Your task to perform on an android device: Open calendar and show me the first week of next month Image 0: 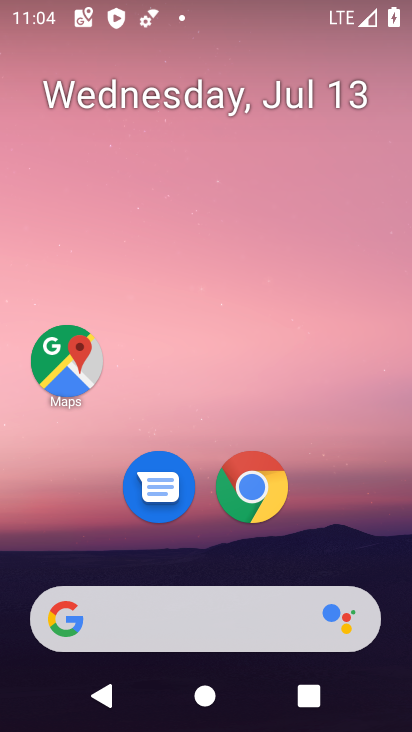
Step 0: click (410, 541)
Your task to perform on an android device: Open calendar and show me the first week of next month Image 1: 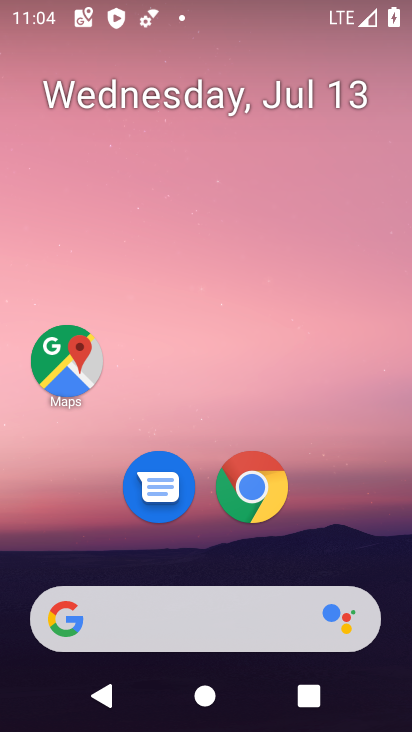
Step 1: drag from (208, 540) to (358, 570)
Your task to perform on an android device: Open calendar and show me the first week of next month Image 2: 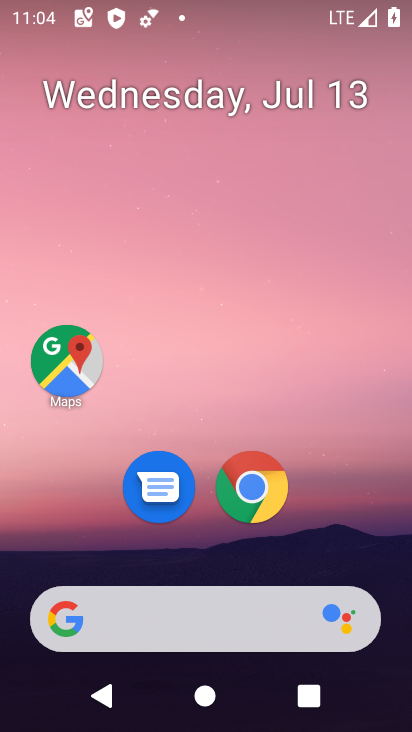
Step 2: drag from (210, 554) to (209, 82)
Your task to perform on an android device: Open calendar and show me the first week of next month Image 3: 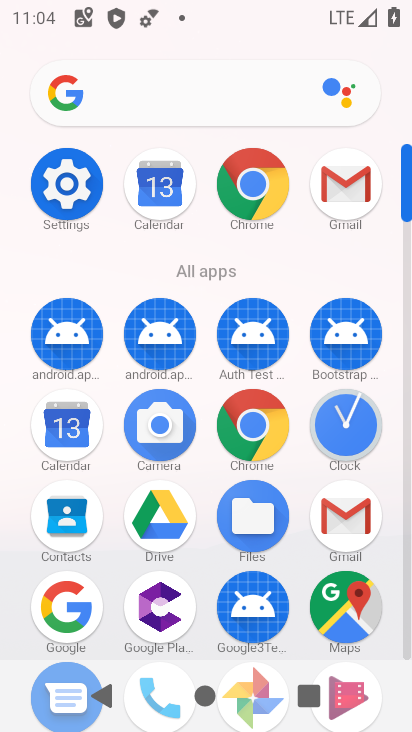
Step 3: click (60, 445)
Your task to perform on an android device: Open calendar and show me the first week of next month Image 4: 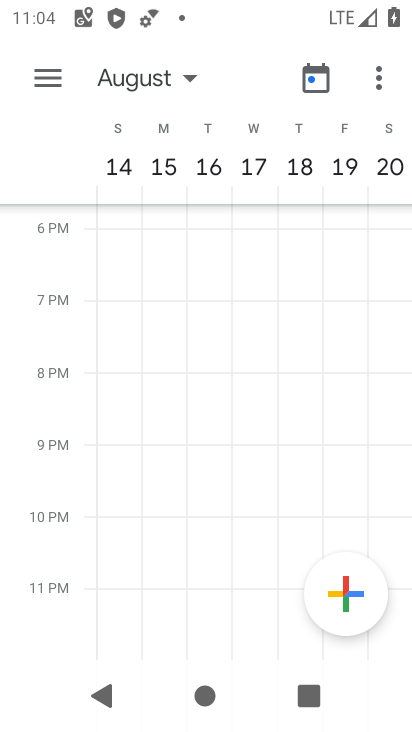
Step 4: task complete